Your task to perform on an android device: turn off smart reply in the gmail app Image 0: 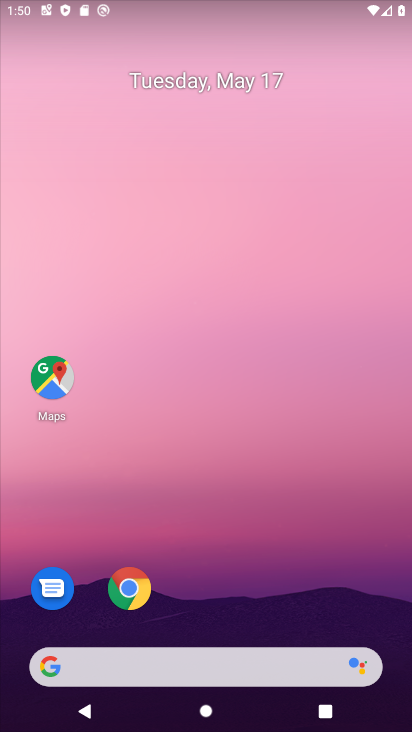
Step 0: drag from (208, 561) to (67, 174)
Your task to perform on an android device: turn off smart reply in the gmail app Image 1: 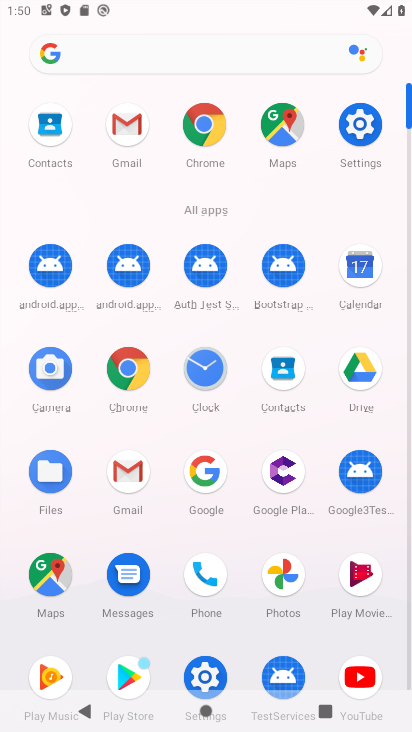
Step 1: click (114, 107)
Your task to perform on an android device: turn off smart reply in the gmail app Image 2: 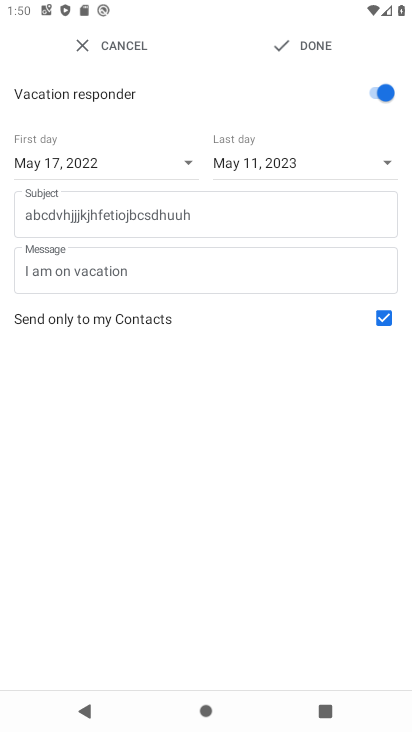
Step 2: press back button
Your task to perform on an android device: turn off smart reply in the gmail app Image 3: 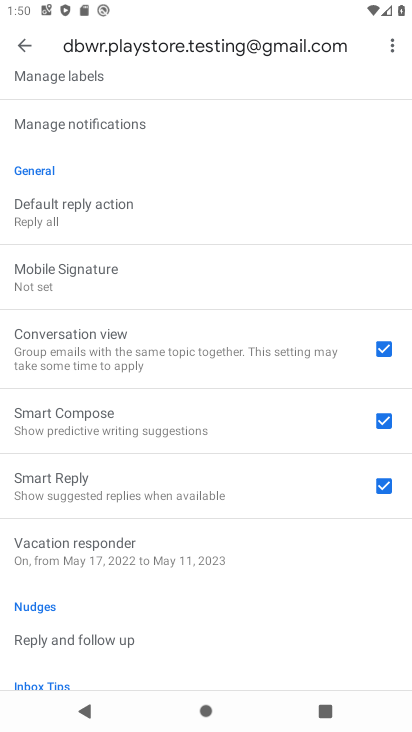
Step 3: click (382, 487)
Your task to perform on an android device: turn off smart reply in the gmail app Image 4: 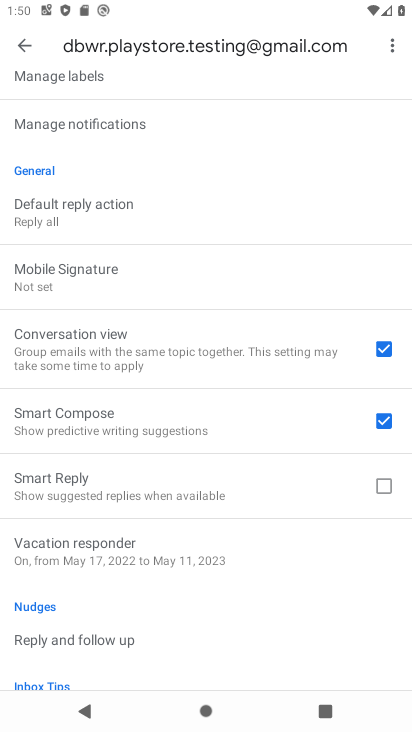
Step 4: task complete